Your task to perform on an android device: Open Google Chrome Image 0: 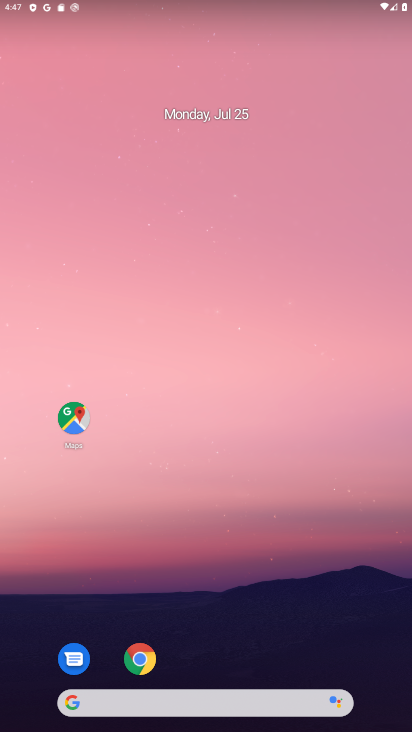
Step 0: click (145, 666)
Your task to perform on an android device: Open Google Chrome Image 1: 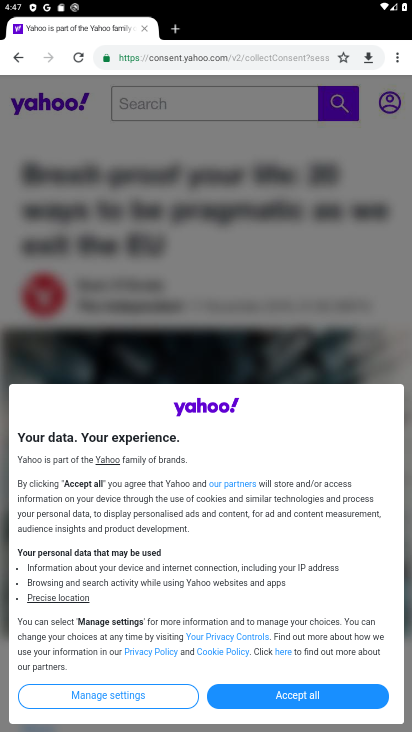
Step 1: task complete